Your task to perform on an android device: toggle improve location accuracy Image 0: 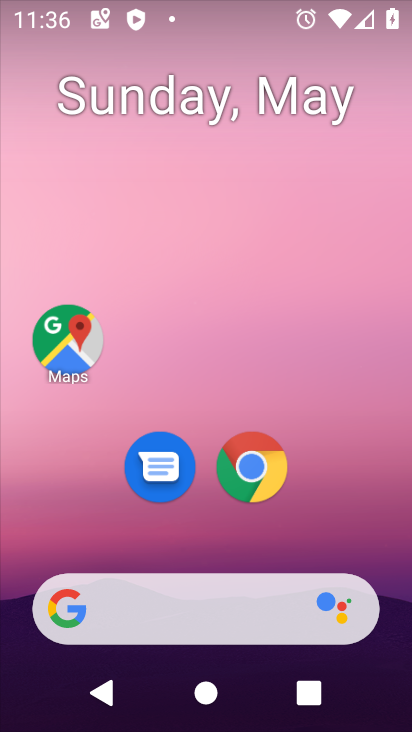
Step 0: drag from (374, 575) to (327, 17)
Your task to perform on an android device: toggle improve location accuracy Image 1: 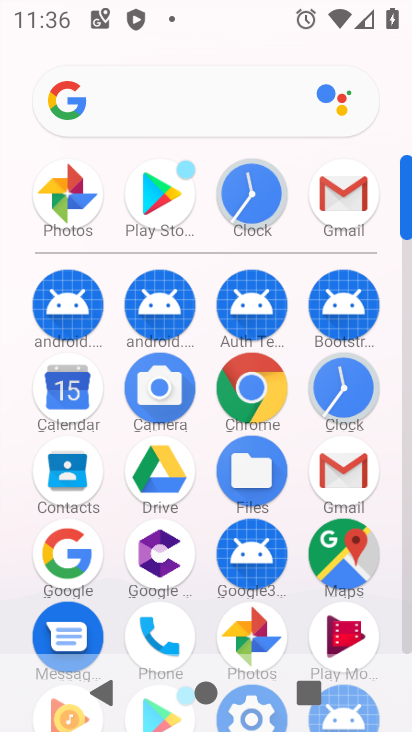
Step 1: click (406, 343)
Your task to perform on an android device: toggle improve location accuracy Image 2: 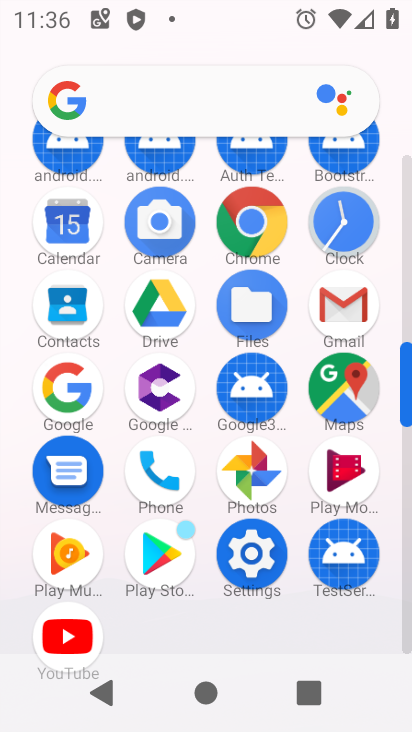
Step 2: click (247, 549)
Your task to perform on an android device: toggle improve location accuracy Image 3: 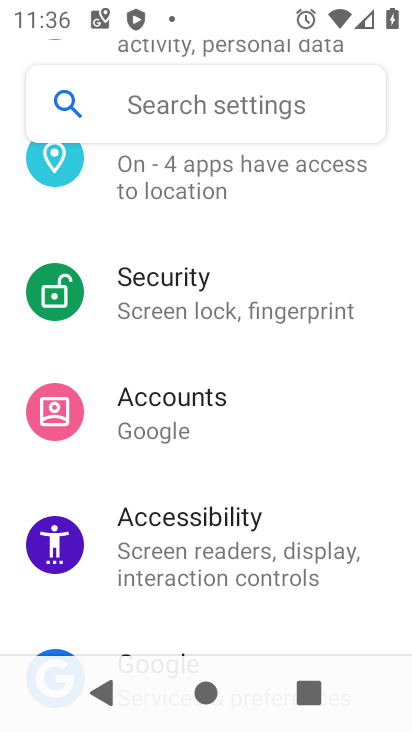
Step 3: drag from (316, 419) to (317, 621)
Your task to perform on an android device: toggle improve location accuracy Image 4: 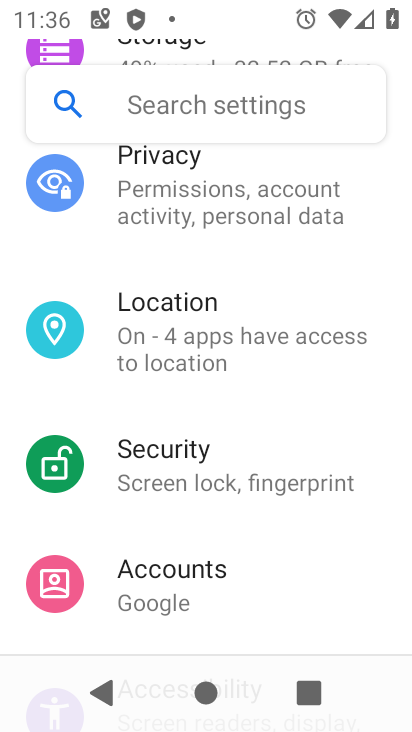
Step 4: click (159, 350)
Your task to perform on an android device: toggle improve location accuracy Image 5: 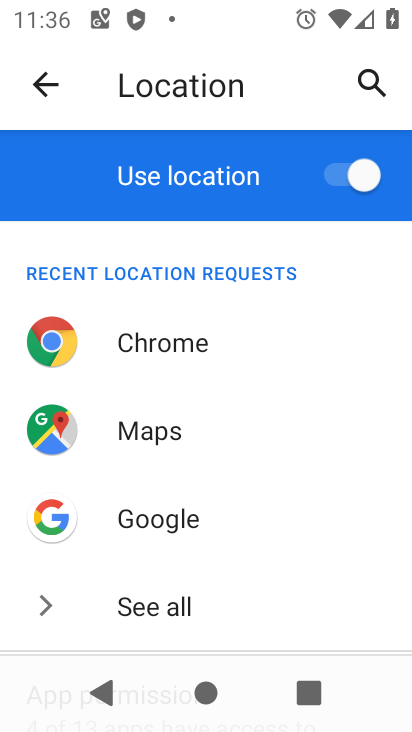
Step 5: drag from (251, 485) to (223, 116)
Your task to perform on an android device: toggle improve location accuracy Image 6: 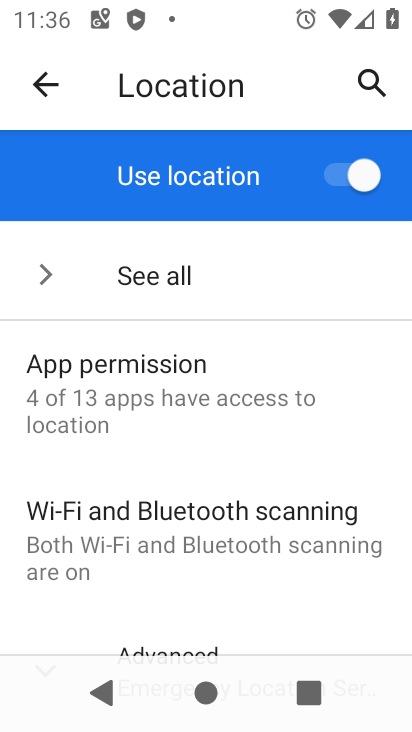
Step 6: drag from (148, 519) to (111, 282)
Your task to perform on an android device: toggle improve location accuracy Image 7: 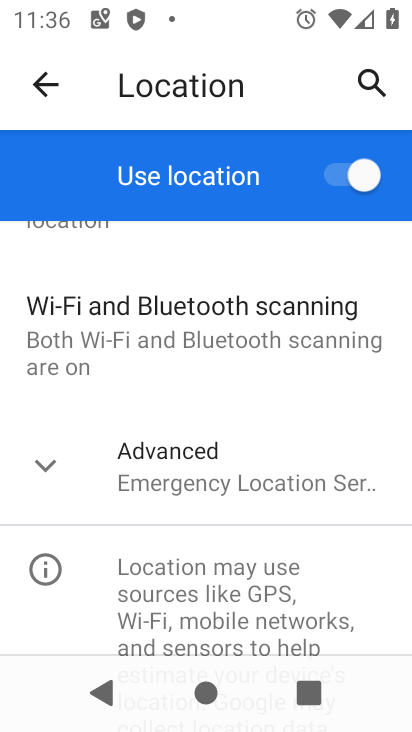
Step 7: click (47, 472)
Your task to perform on an android device: toggle improve location accuracy Image 8: 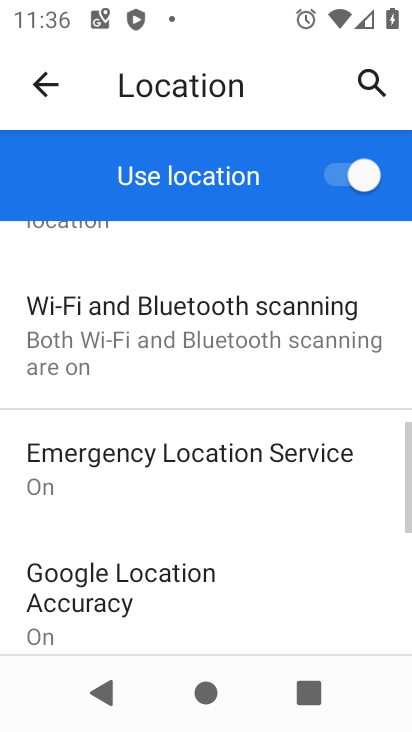
Step 8: drag from (184, 549) to (154, 248)
Your task to perform on an android device: toggle improve location accuracy Image 9: 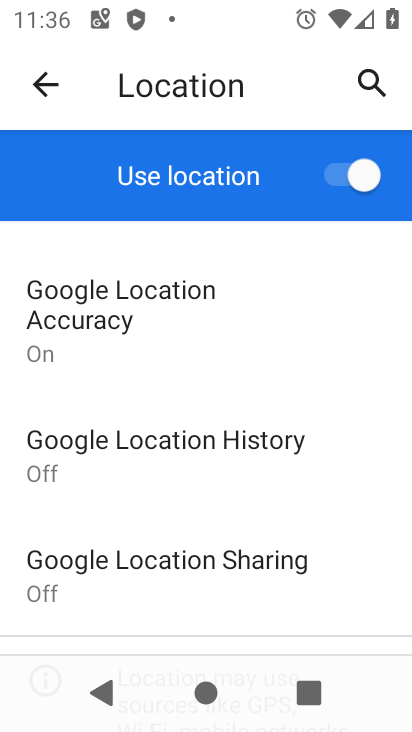
Step 9: click (67, 309)
Your task to perform on an android device: toggle improve location accuracy Image 10: 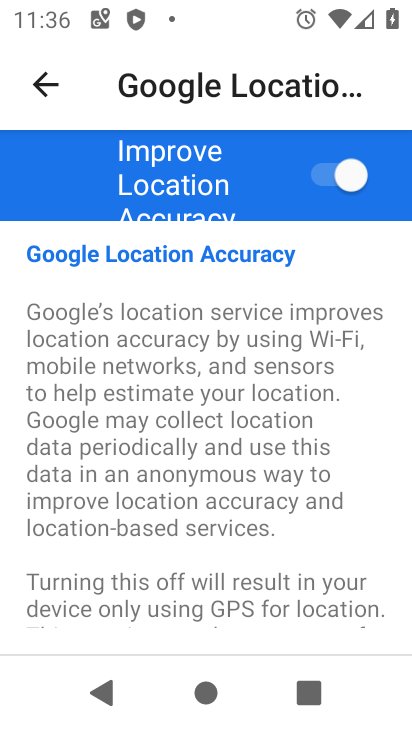
Step 10: click (335, 174)
Your task to perform on an android device: toggle improve location accuracy Image 11: 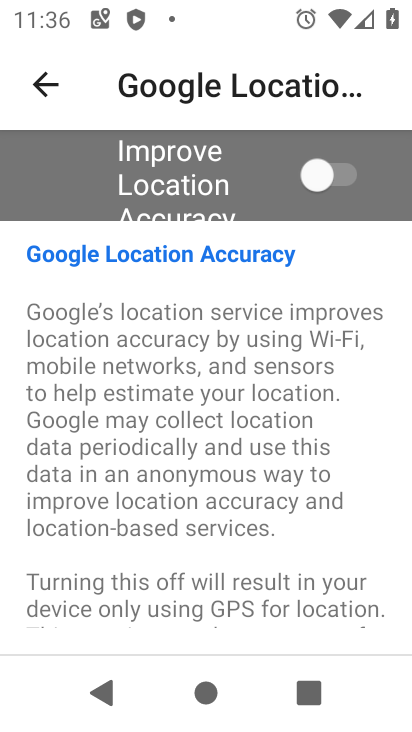
Step 11: task complete